Your task to perform on an android device: Open sound settings Image 0: 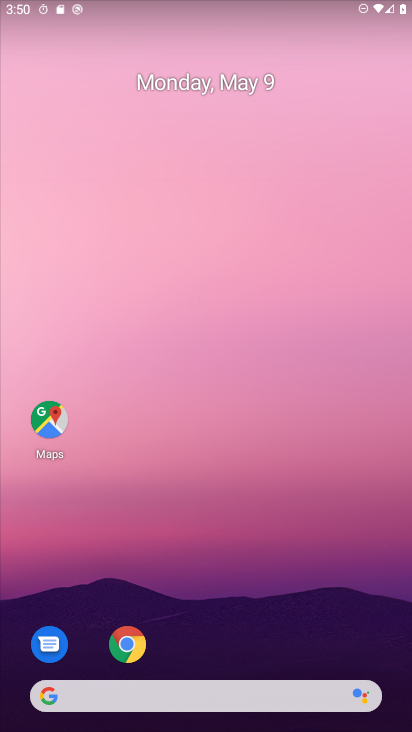
Step 0: drag from (198, 659) to (264, 79)
Your task to perform on an android device: Open sound settings Image 1: 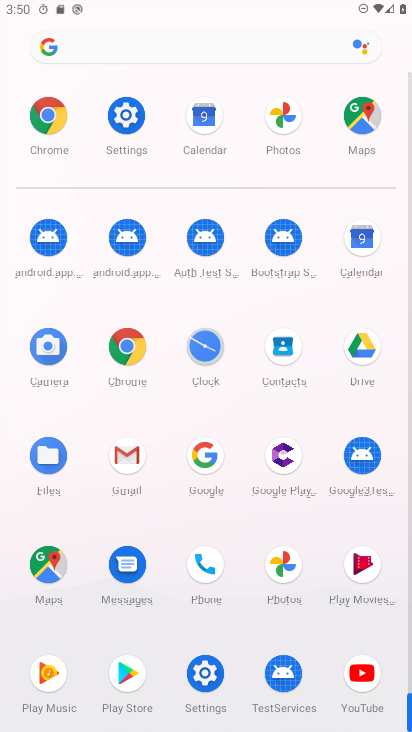
Step 1: click (201, 688)
Your task to perform on an android device: Open sound settings Image 2: 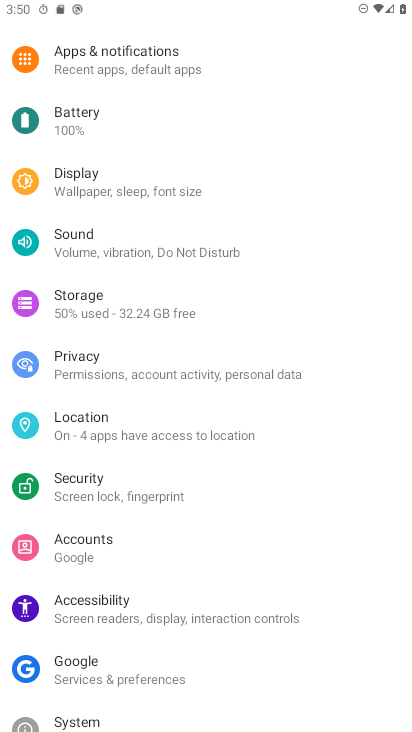
Step 2: click (70, 263)
Your task to perform on an android device: Open sound settings Image 3: 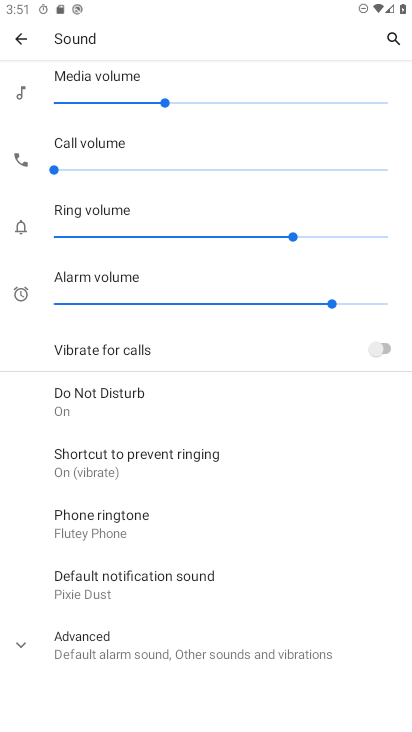
Step 3: task complete